Your task to perform on an android device: Open notification settings Image 0: 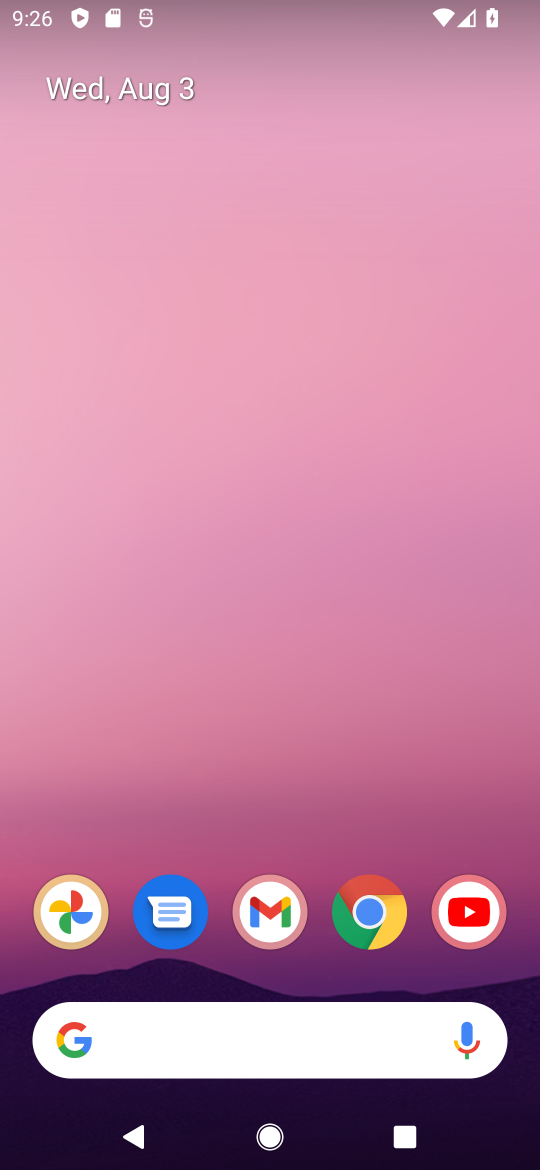
Step 0: drag from (422, 951) to (534, 171)
Your task to perform on an android device: Open notification settings Image 1: 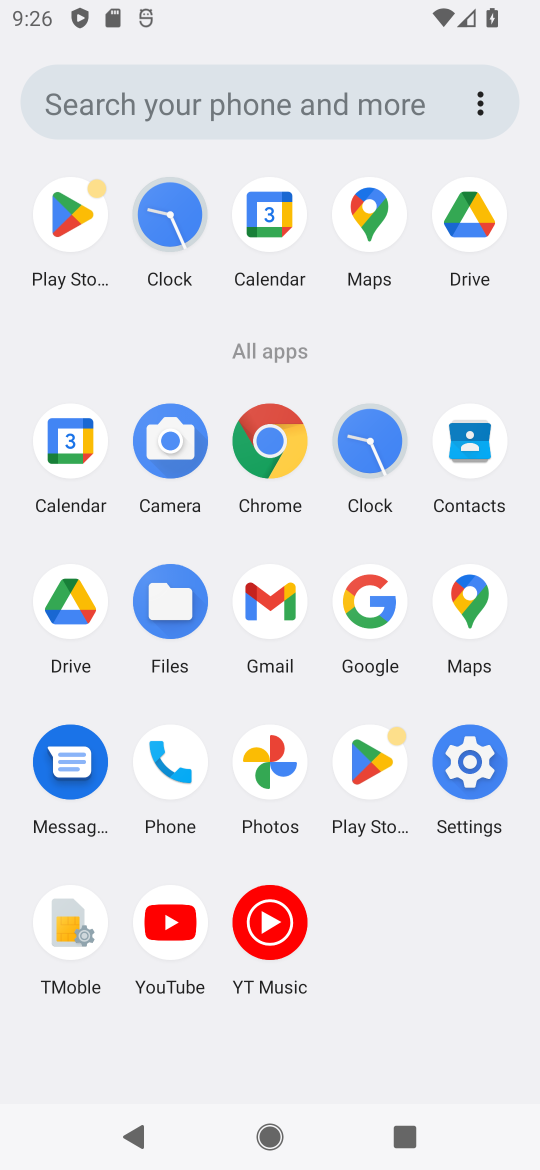
Step 1: click (467, 786)
Your task to perform on an android device: Open notification settings Image 2: 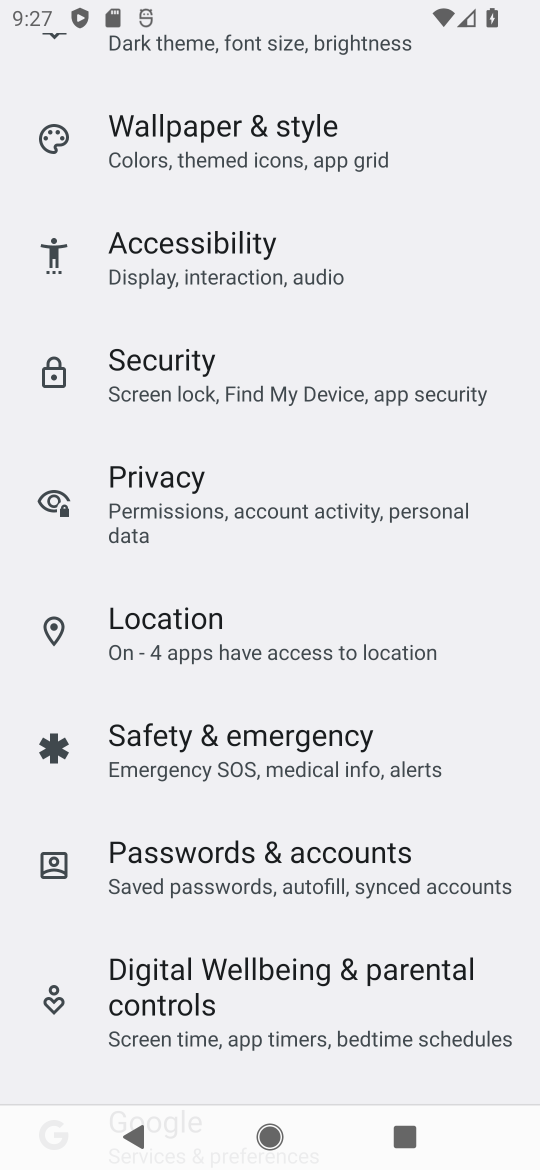
Step 2: drag from (258, 283) to (316, 1006)
Your task to perform on an android device: Open notification settings Image 3: 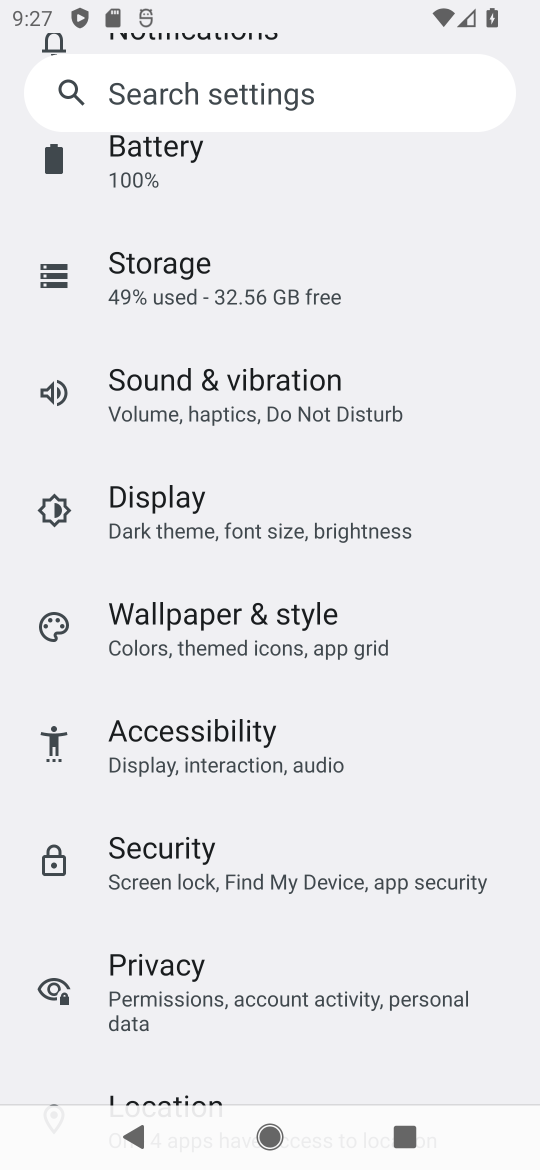
Step 3: drag from (300, 314) to (353, 955)
Your task to perform on an android device: Open notification settings Image 4: 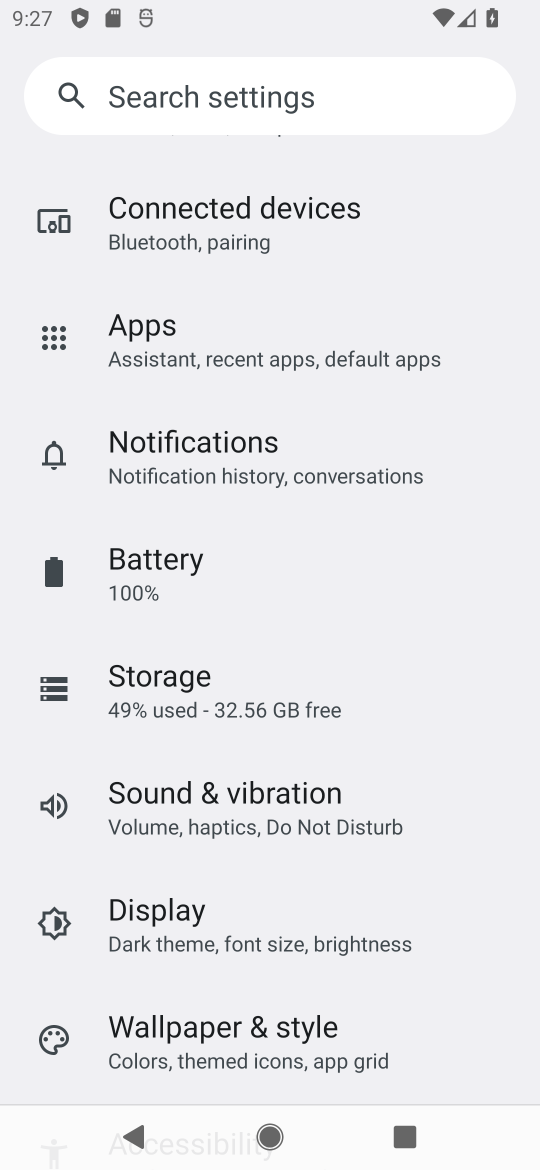
Step 4: click (264, 473)
Your task to perform on an android device: Open notification settings Image 5: 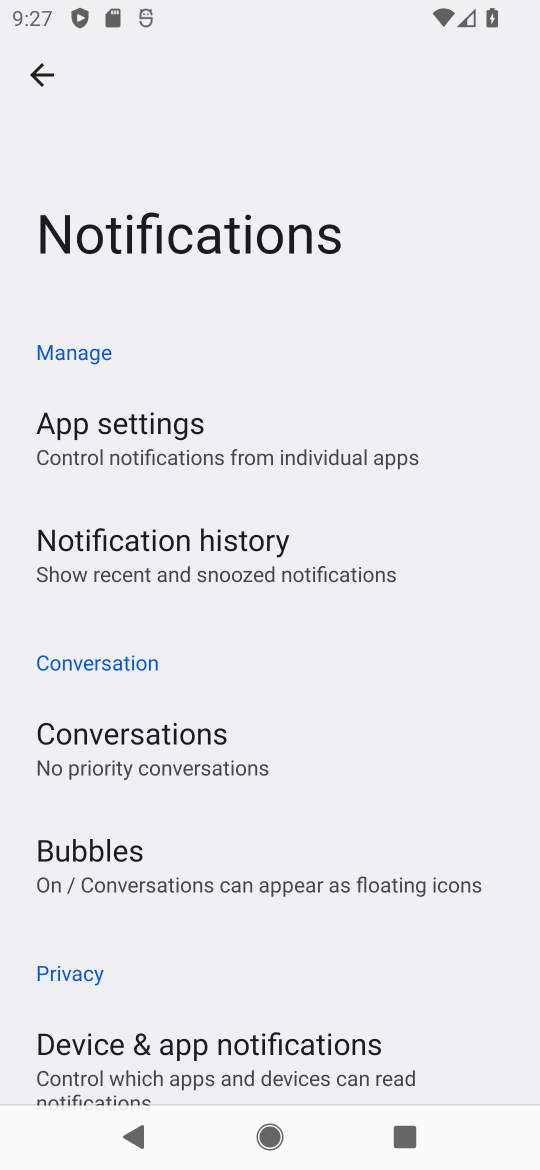
Step 5: drag from (84, 1075) to (32, 599)
Your task to perform on an android device: Open notification settings Image 6: 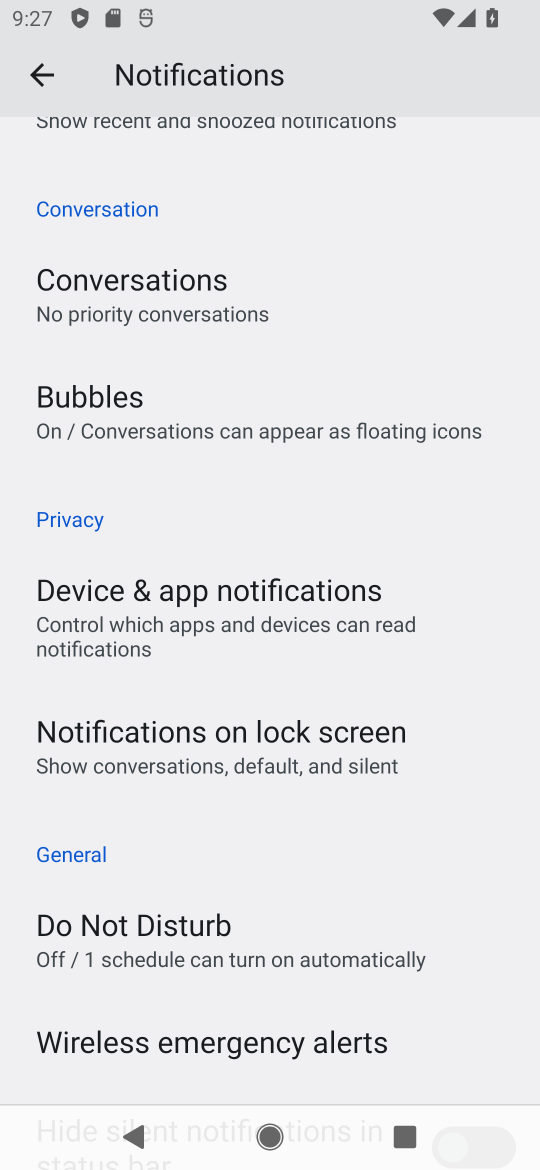
Step 6: click (197, 631)
Your task to perform on an android device: Open notification settings Image 7: 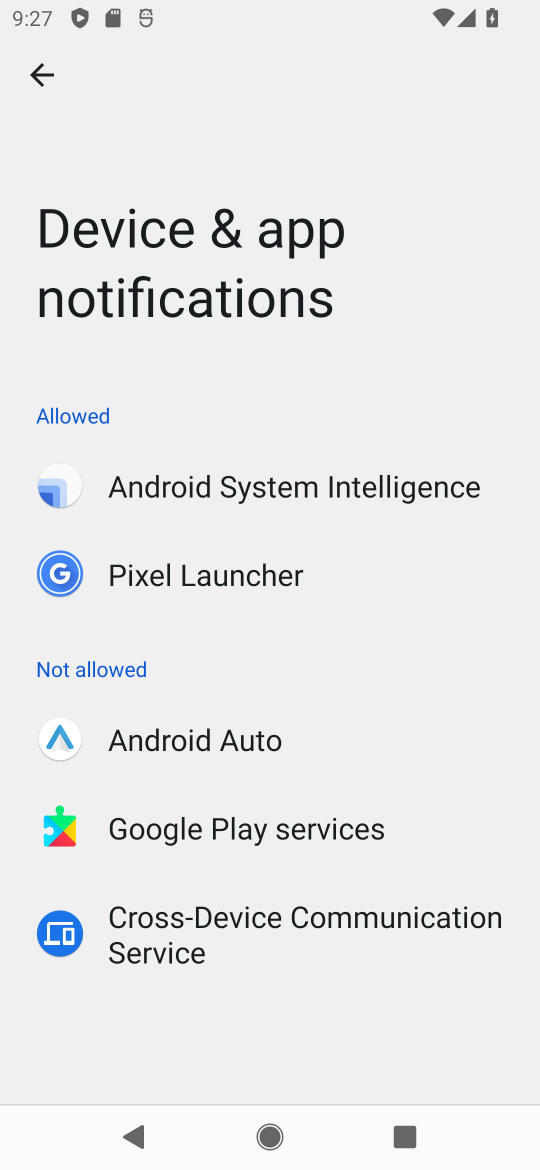
Step 7: drag from (191, 1089) to (92, 624)
Your task to perform on an android device: Open notification settings Image 8: 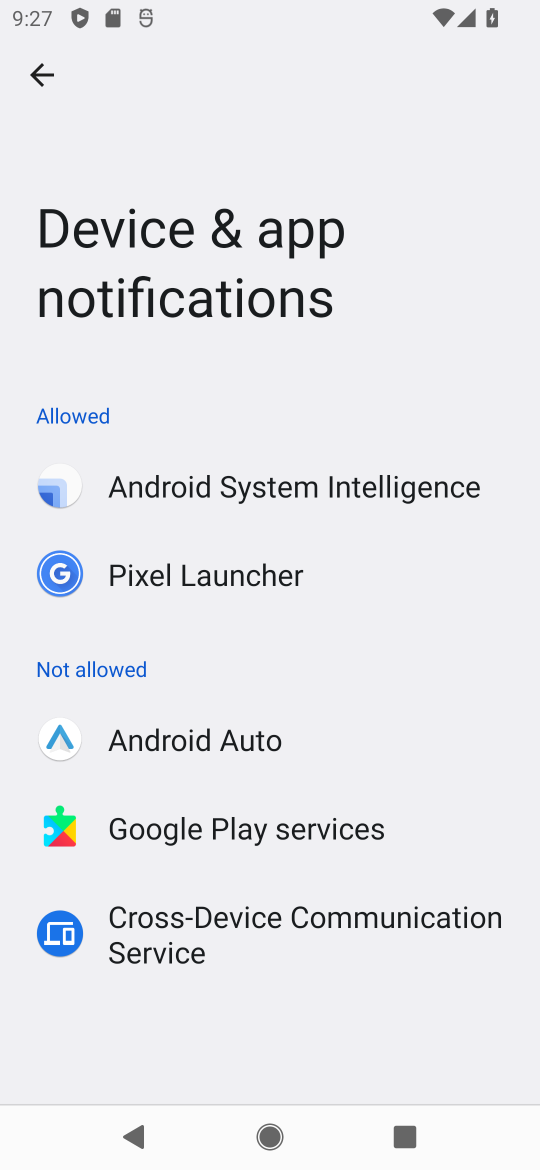
Step 8: drag from (375, 1038) to (390, 668)
Your task to perform on an android device: Open notification settings Image 9: 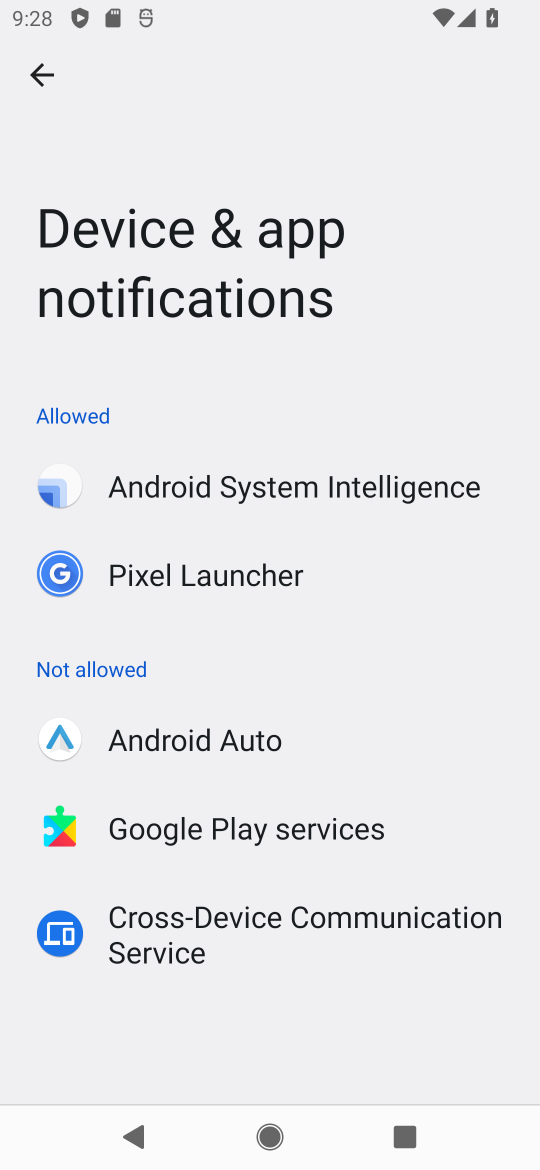
Step 9: click (37, 64)
Your task to perform on an android device: Open notification settings Image 10: 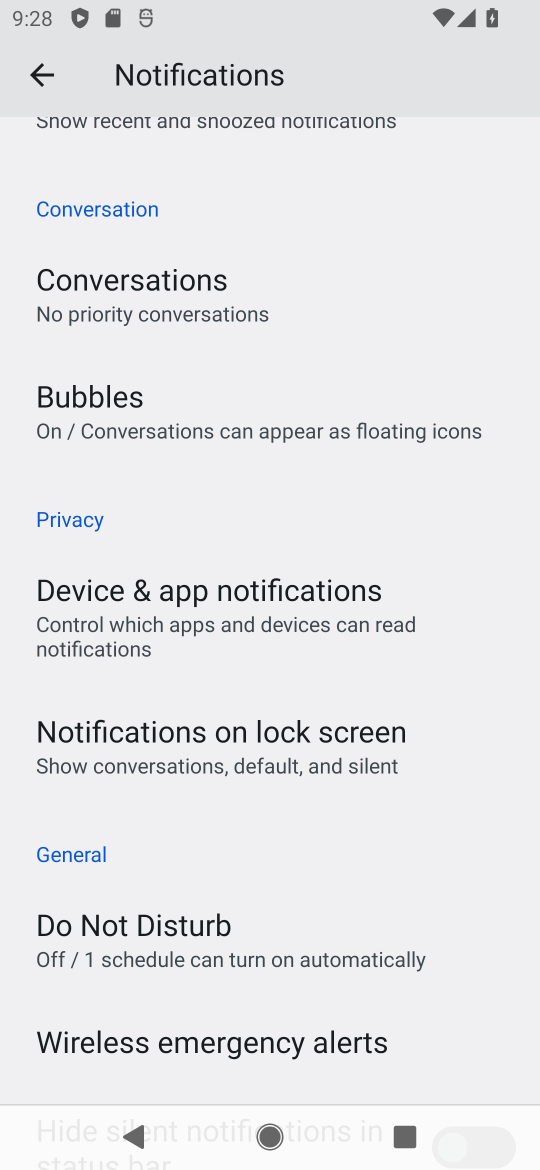
Step 10: drag from (160, 366) to (191, 1116)
Your task to perform on an android device: Open notification settings Image 11: 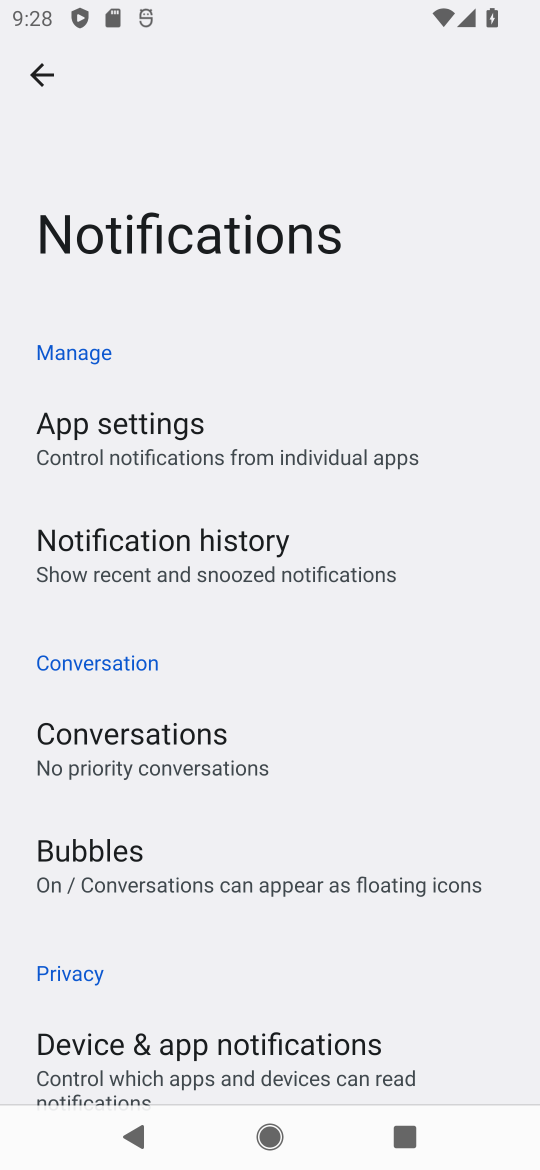
Step 11: click (179, 565)
Your task to perform on an android device: Open notification settings Image 12: 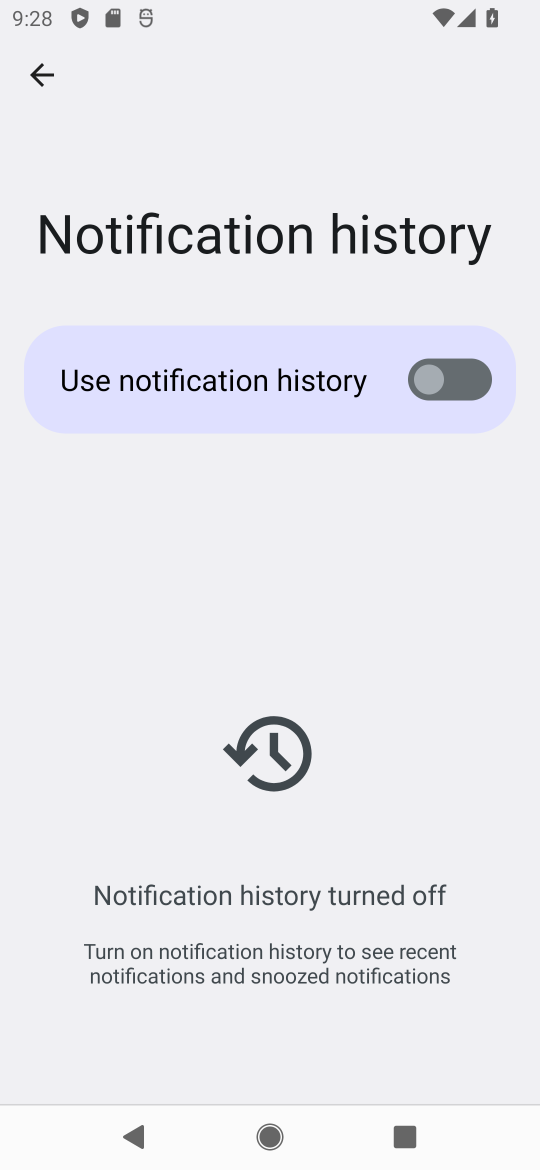
Step 12: task complete